Your task to perform on an android device: turn off sleep mode Image 0: 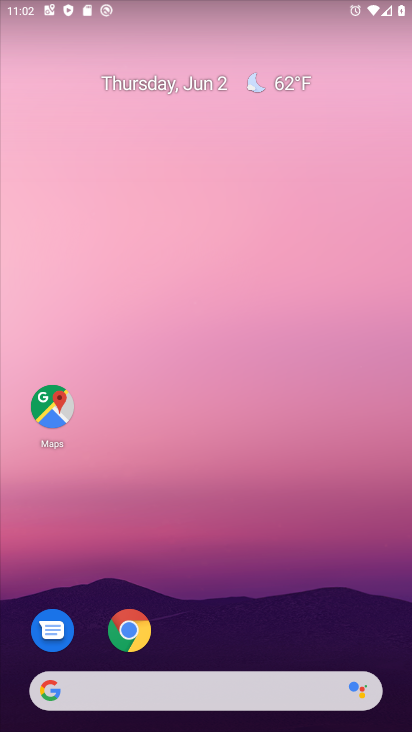
Step 0: press home button
Your task to perform on an android device: turn off sleep mode Image 1: 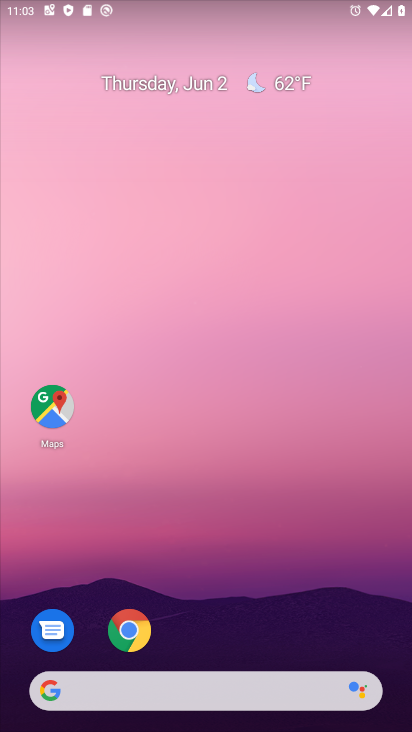
Step 1: drag from (179, 696) to (267, 95)
Your task to perform on an android device: turn off sleep mode Image 2: 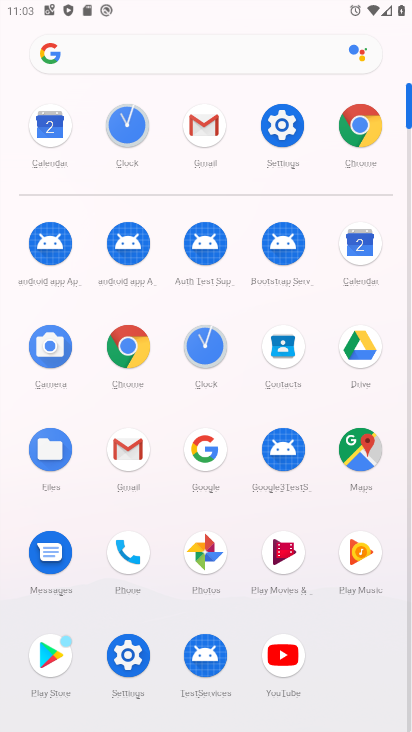
Step 2: click (282, 133)
Your task to perform on an android device: turn off sleep mode Image 3: 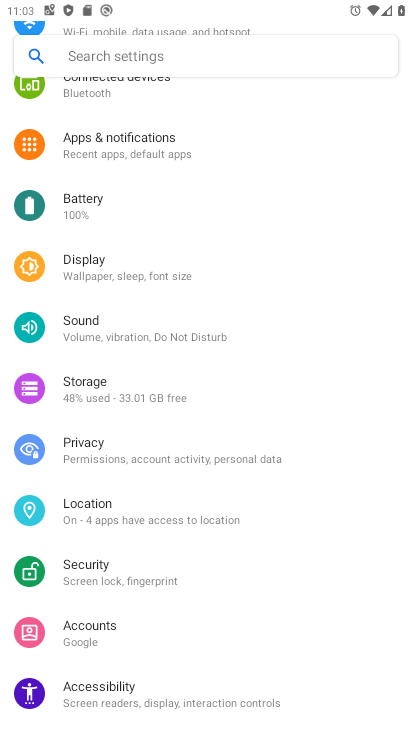
Step 3: click (132, 271)
Your task to perform on an android device: turn off sleep mode Image 4: 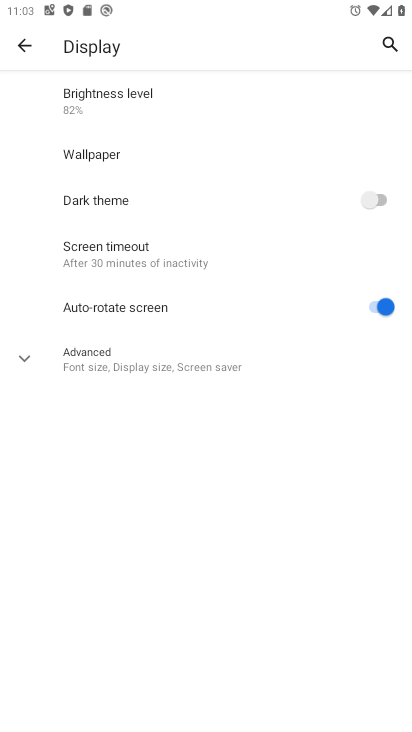
Step 4: task complete